Your task to perform on an android device: add a label to a message in the gmail app Image 0: 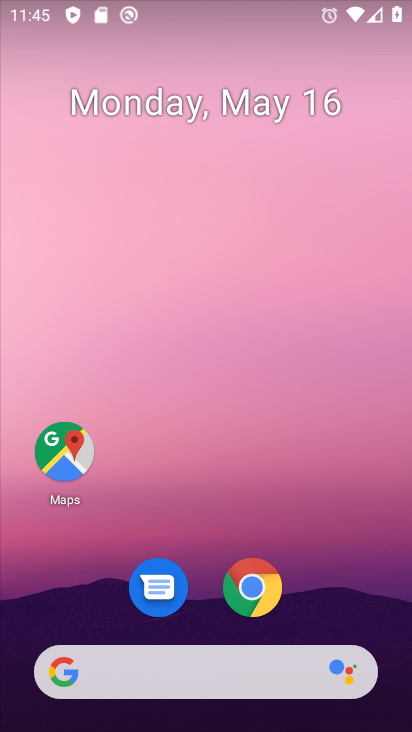
Step 0: drag from (336, 612) to (269, 33)
Your task to perform on an android device: add a label to a message in the gmail app Image 1: 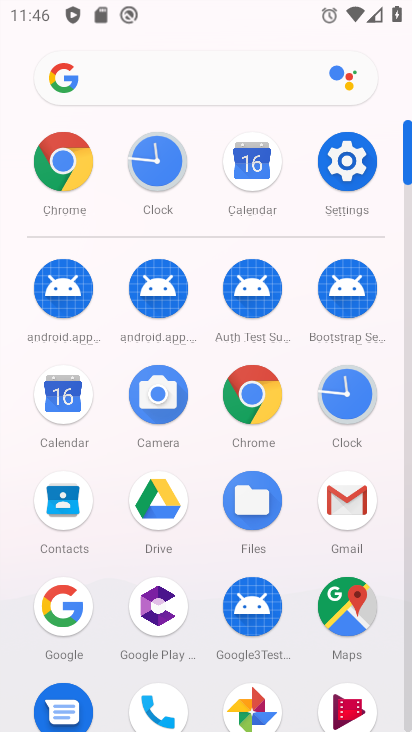
Step 1: click (338, 505)
Your task to perform on an android device: add a label to a message in the gmail app Image 2: 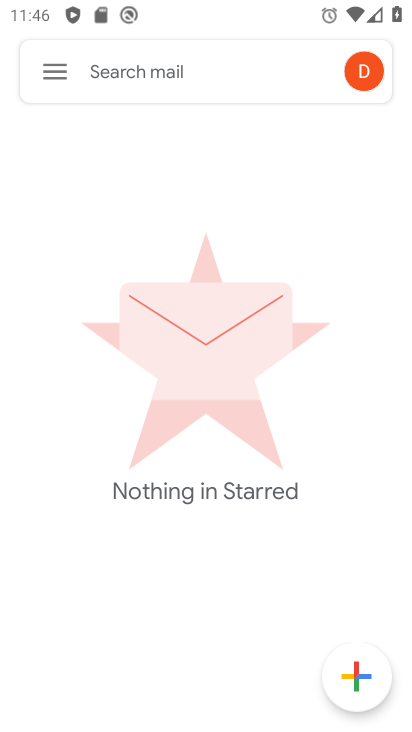
Step 2: task complete